Your task to perform on an android device: open sync settings in chrome Image 0: 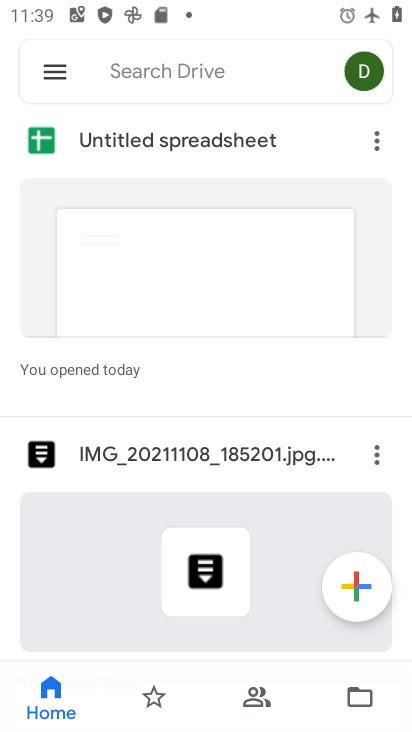
Step 0: press home button
Your task to perform on an android device: open sync settings in chrome Image 1: 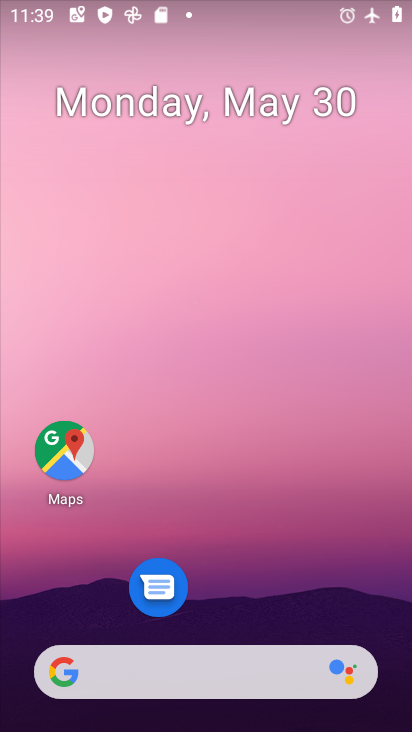
Step 1: drag from (215, 636) to (217, 47)
Your task to perform on an android device: open sync settings in chrome Image 2: 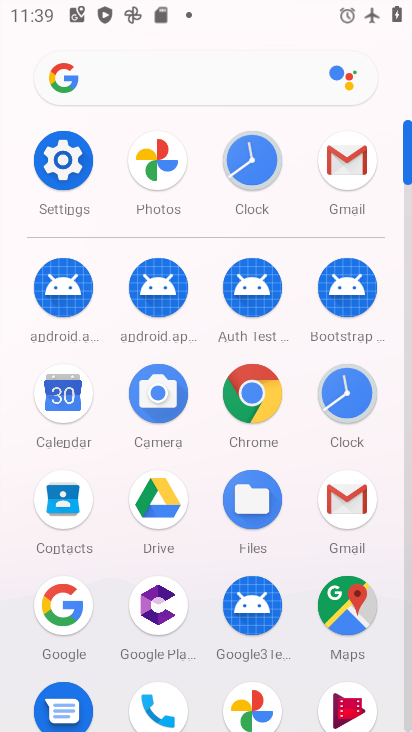
Step 2: click (251, 392)
Your task to perform on an android device: open sync settings in chrome Image 3: 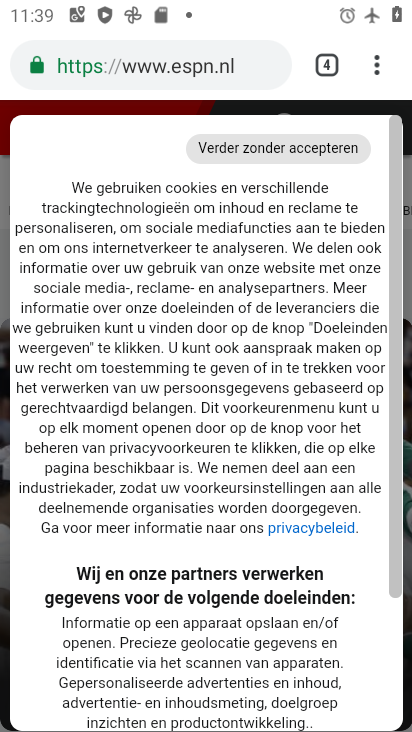
Step 3: click (366, 67)
Your task to perform on an android device: open sync settings in chrome Image 4: 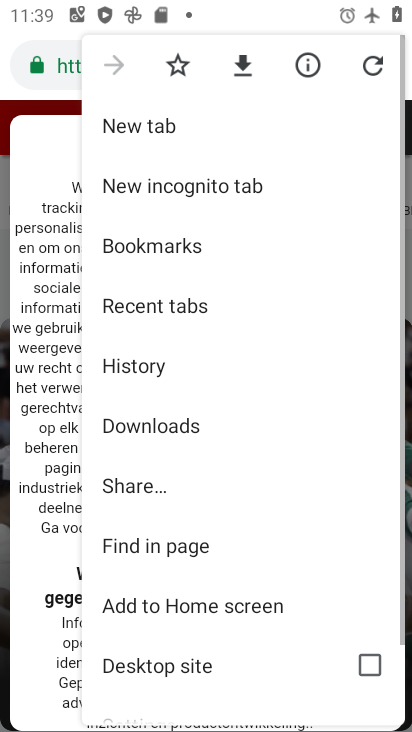
Step 4: drag from (255, 584) to (182, 96)
Your task to perform on an android device: open sync settings in chrome Image 5: 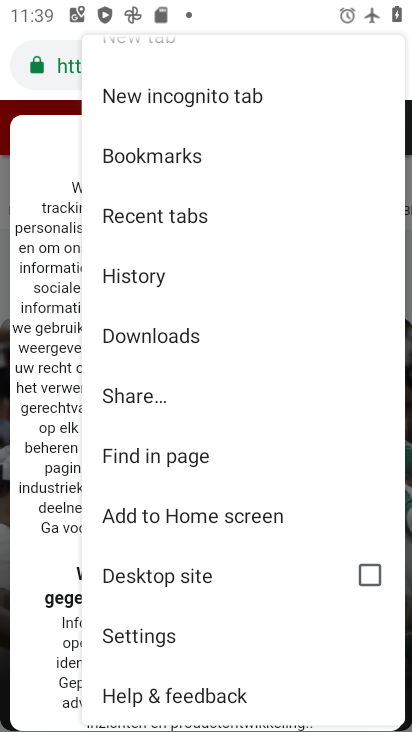
Step 5: click (130, 637)
Your task to perform on an android device: open sync settings in chrome Image 6: 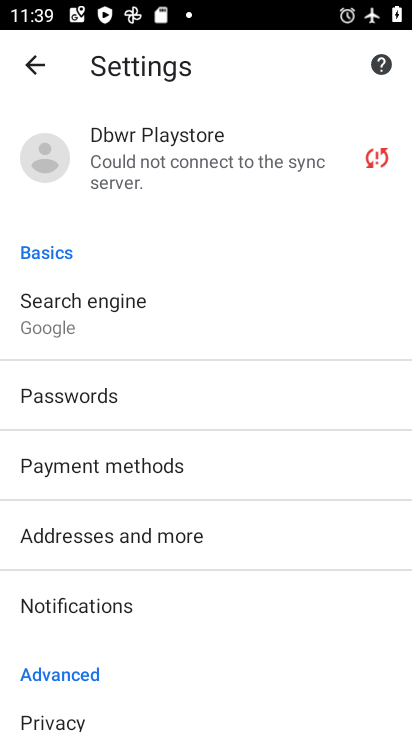
Step 6: click (126, 138)
Your task to perform on an android device: open sync settings in chrome Image 7: 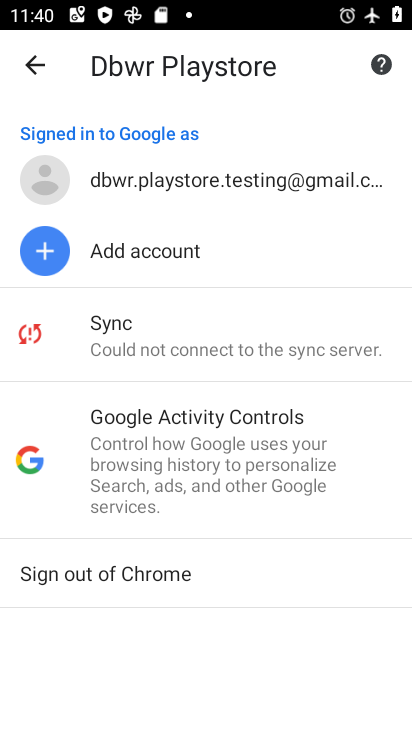
Step 7: task complete